Your task to perform on an android device: make emails show in primary in the gmail app Image 0: 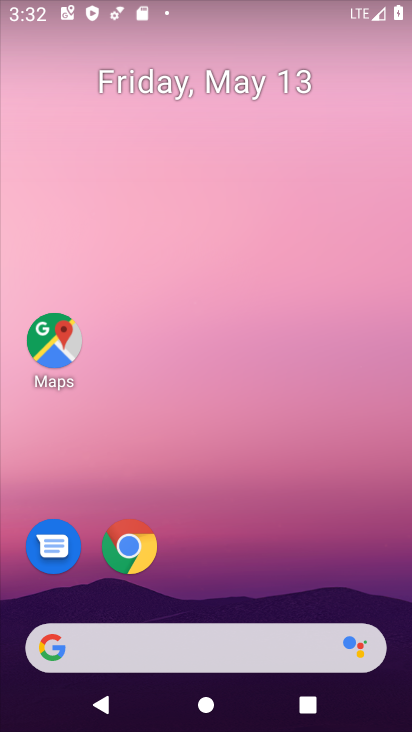
Step 0: drag from (196, 603) to (229, 6)
Your task to perform on an android device: make emails show in primary in the gmail app Image 1: 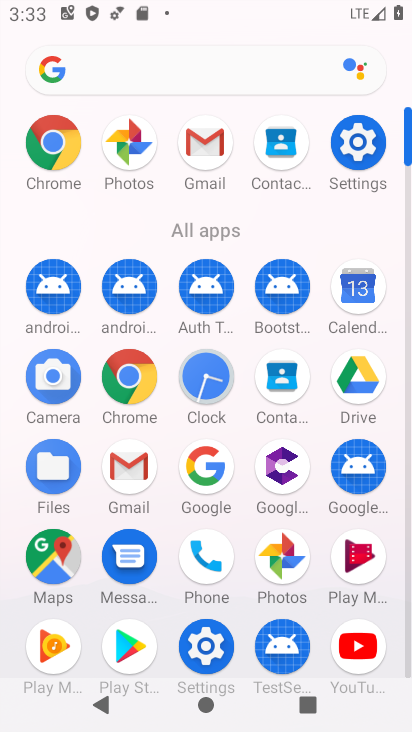
Step 1: click (207, 164)
Your task to perform on an android device: make emails show in primary in the gmail app Image 2: 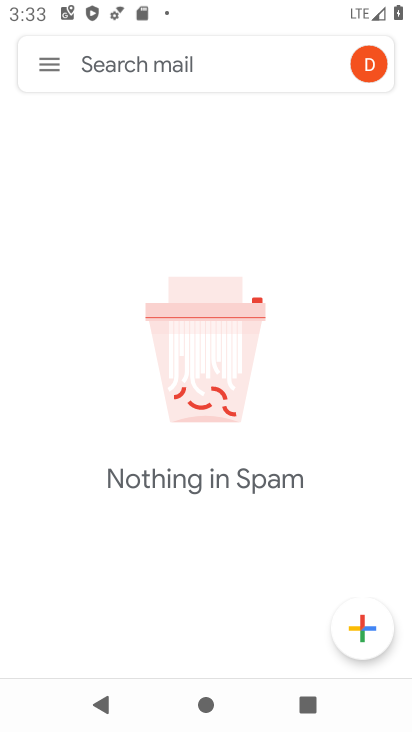
Step 2: click (58, 54)
Your task to perform on an android device: make emails show in primary in the gmail app Image 3: 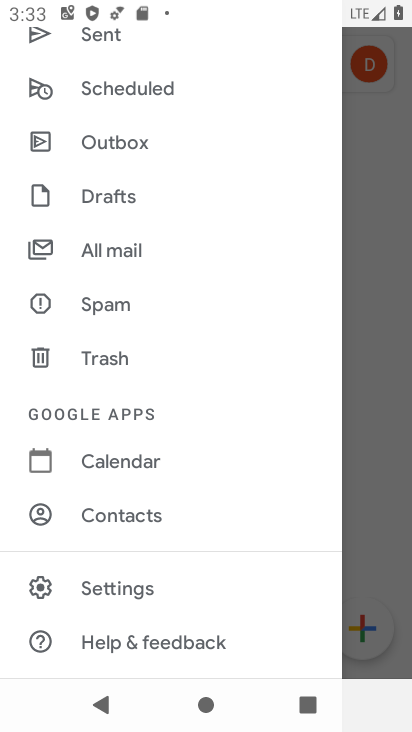
Step 3: task complete